Your task to perform on an android device: Open Reddit.com Image 0: 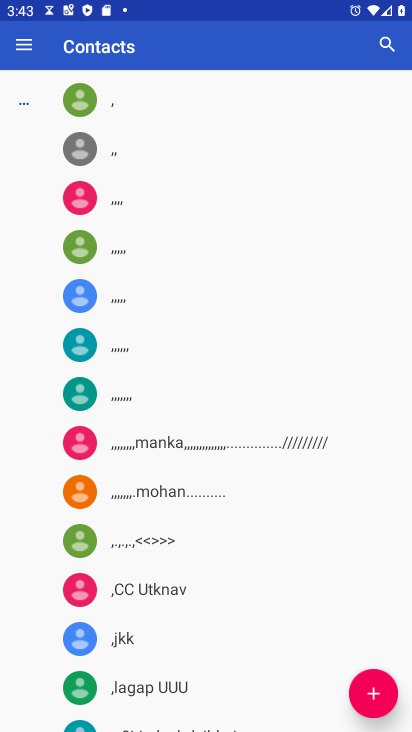
Step 0: press home button
Your task to perform on an android device: Open Reddit.com Image 1: 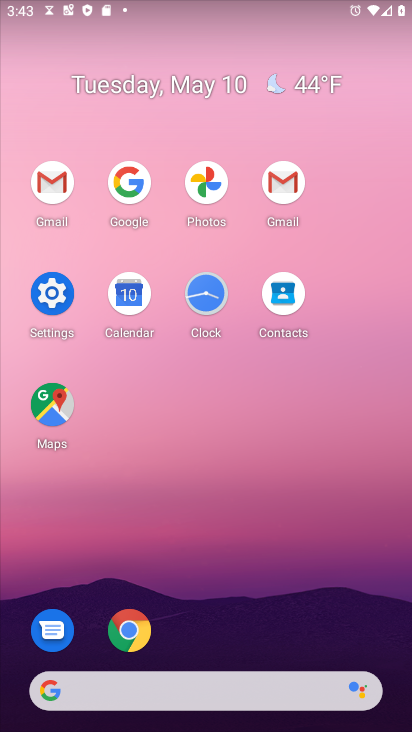
Step 1: click (138, 630)
Your task to perform on an android device: Open Reddit.com Image 2: 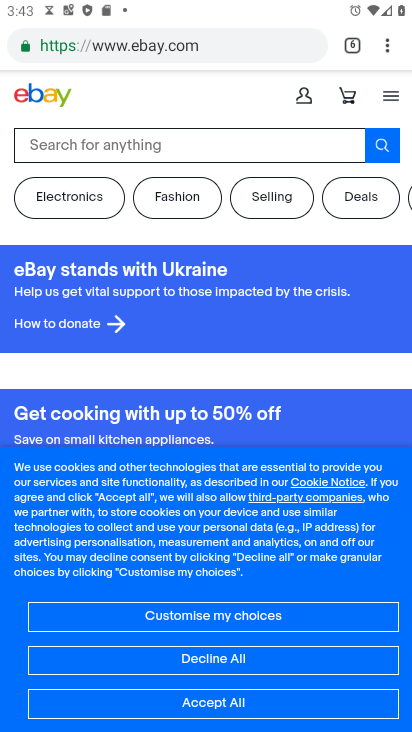
Step 2: click (349, 43)
Your task to perform on an android device: Open Reddit.com Image 3: 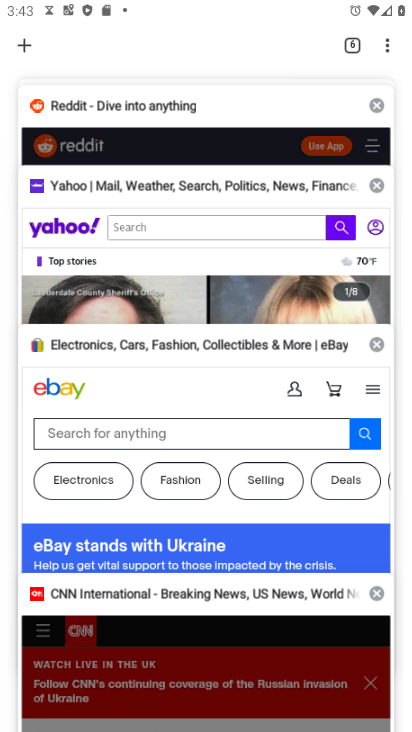
Step 3: drag from (179, 171) to (224, 569)
Your task to perform on an android device: Open Reddit.com Image 4: 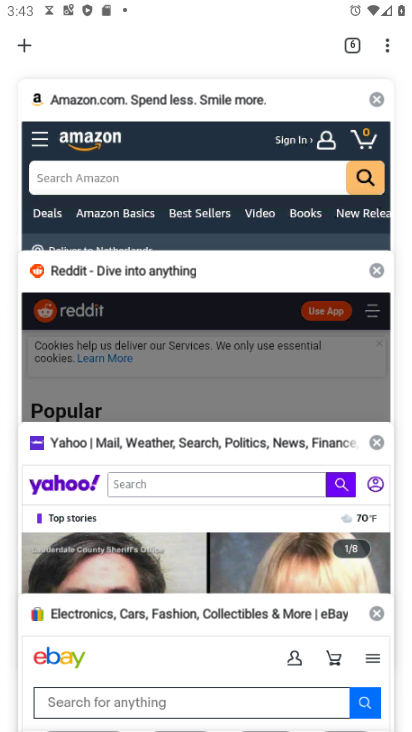
Step 4: click (102, 297)
Your task to perform on an android device: Open Reddit.com Image 5: 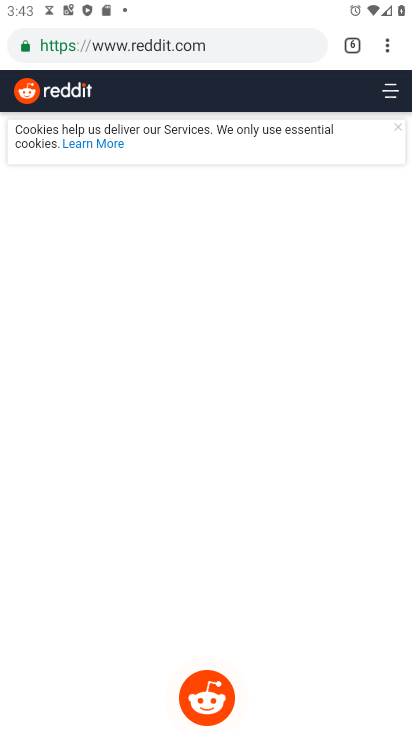
Step 5: task complete